Your task to perform on an android device: Open the stopwatch Image 0: 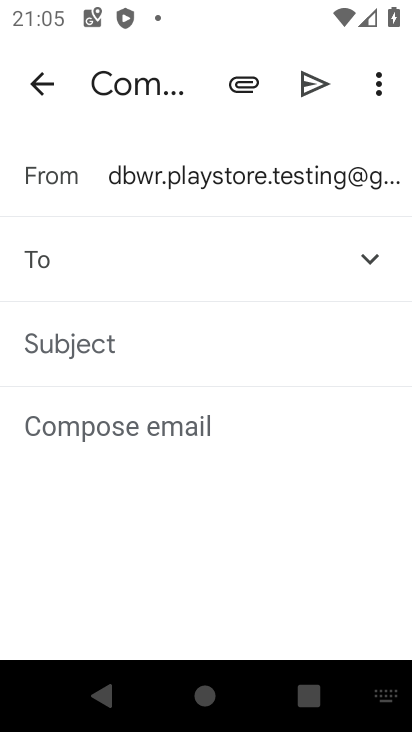
Step 0: press home button
Your task to perform on an android device: Open the stopwatch Image 1: 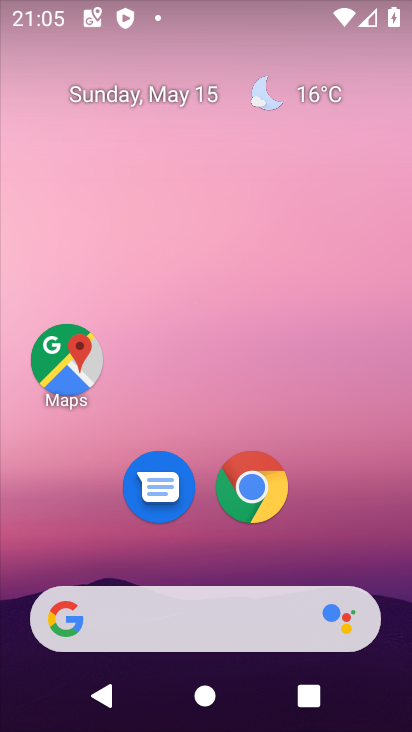
Step 1: drag from (406, 412) to (400, 229)
Your task to perform on an android device: Open the stopwatch Image 2: 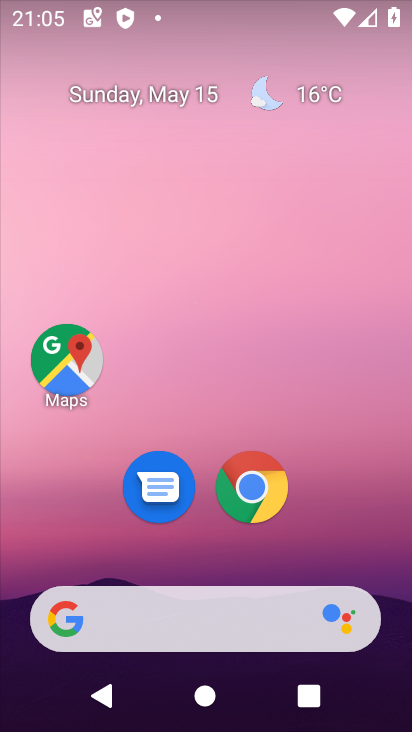
Step 2: drag from (394, 626) to (403, 177)
Your task to perform on an android device: Open the stopwatch Image 3: 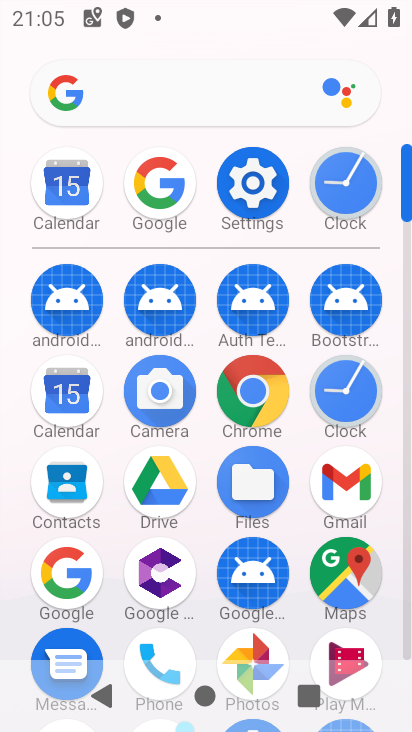
Step 3: click (353, 387)
Your task to perform on an android device: Open the stopwatch Image 4: 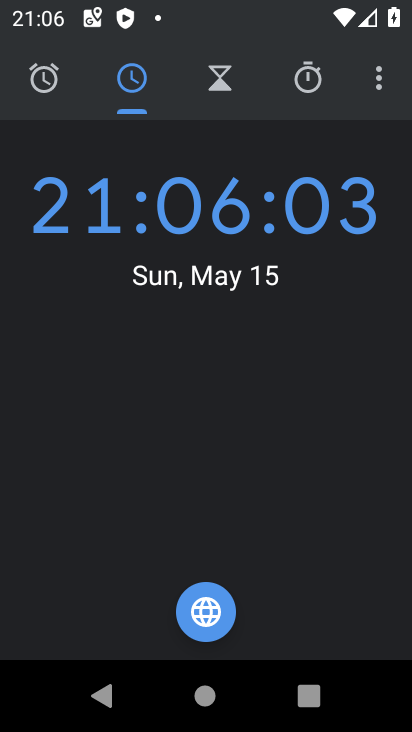
Step 4: click (376, 81)
Your task to perform on an android device: Open the stopwatch Image 5: 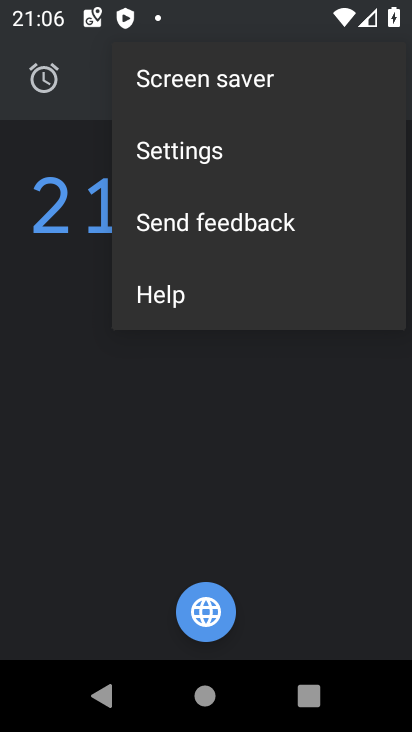
Step 5: click (132, 448)
Your task to perform on an android device: Open the stopwatch Image 6: 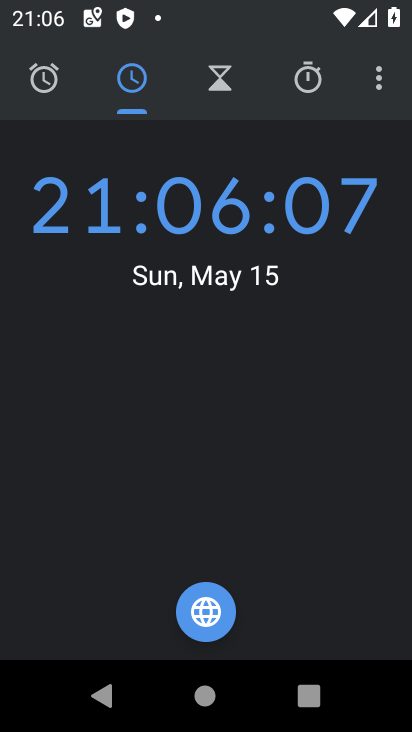
Step 6: click (309, 74)
Your task to perform on an android device: Open the stopwatch Image 7: 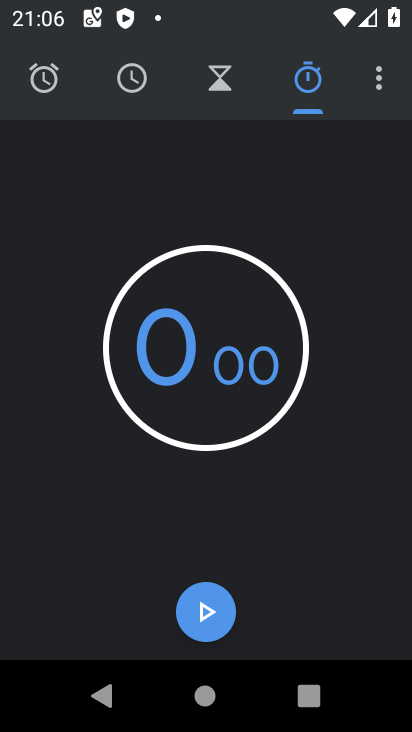
Step 7: click (208, 614)
Your task to perform on an android device: Open the stopwatch Image 8: 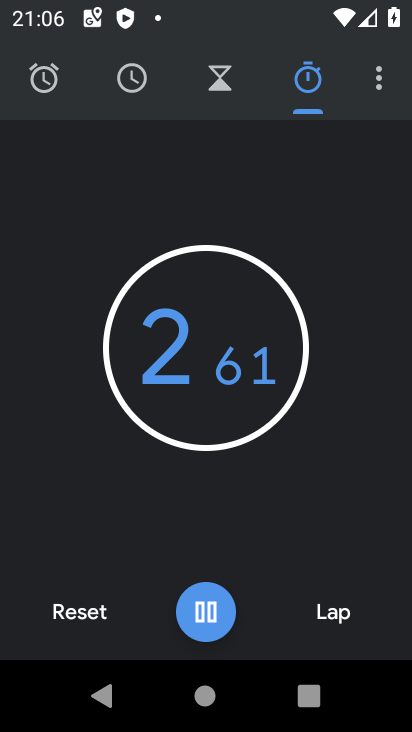
Step 8: task complete